Your task to perform on an android device: Open location settings Image 0: 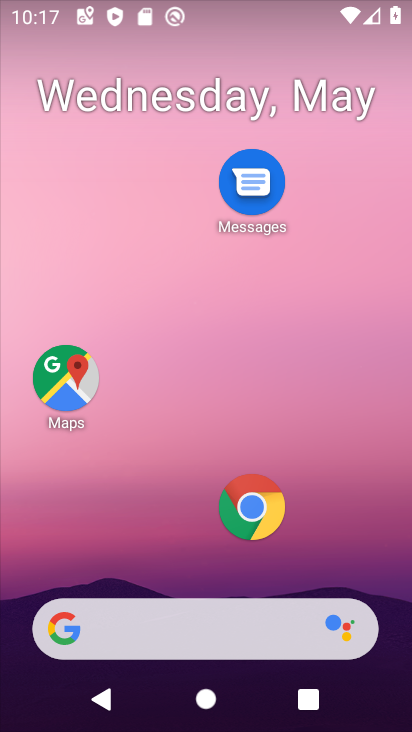
Step 0: drag from (203, 549) to (273, 45)
Your task to perform on an android device: Open location settings Image 1: 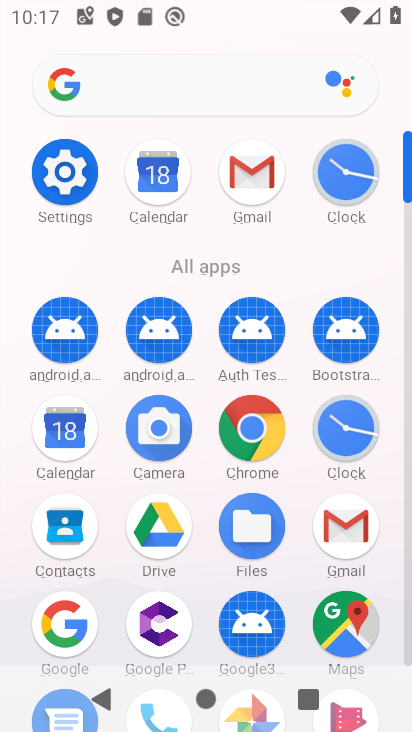
Step 1: click (67, 162)
Your task to perform on an android device: Open location settings Image 2: 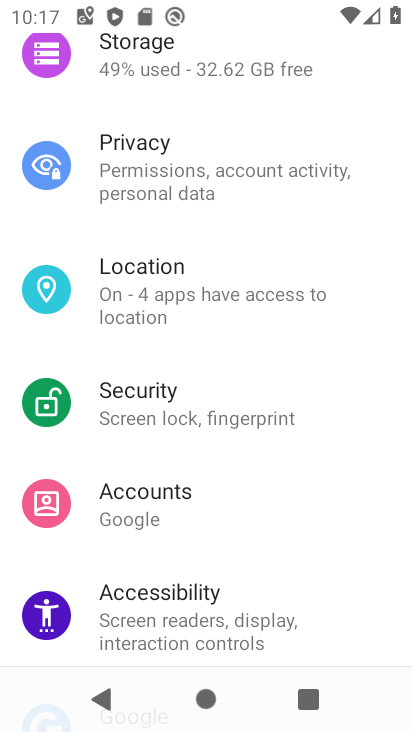
Step 2: click (198, 266)
Your task to perform on an android device: Open location settings Image 3: 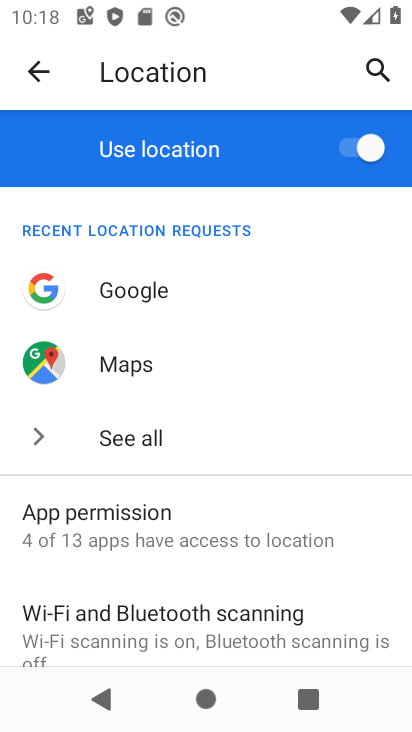
Step 3: drag from (204, 623) to (257, 232)
Your task to perform on an android device: Open location settings Image 4: 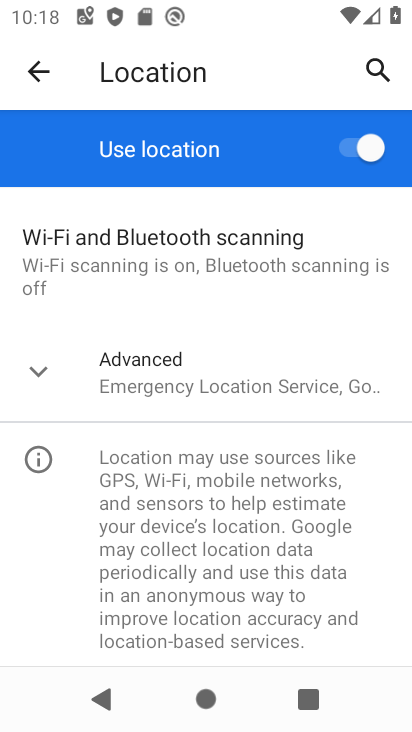
Step 4: click (40, 360)
Your task to perform on an android device: Open location settings Image 5: 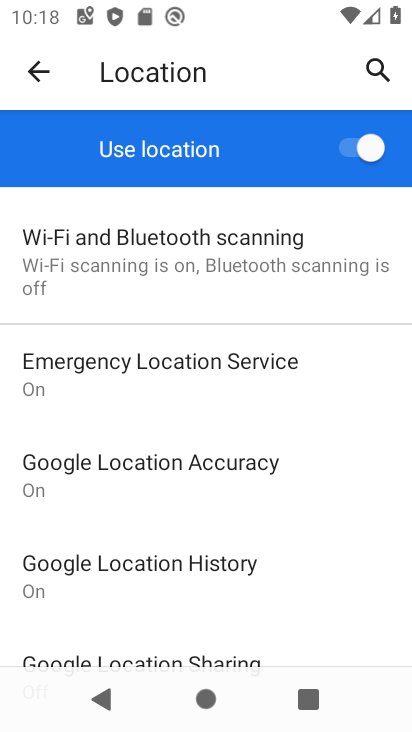
Step 5: task complete